Your task to perform on an android device: Open the calendar and show me this week's events? Image 0: 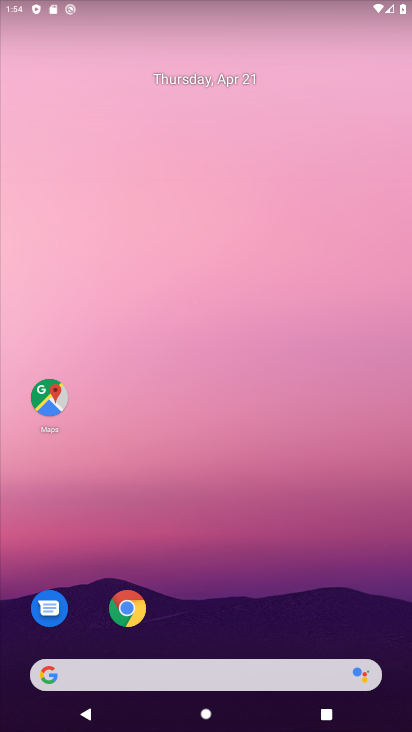
Step 0: drag from (198, 488) to (184, 153)
Your task to perform on an android device: Open the calendar and show me this week's events? Image 1: 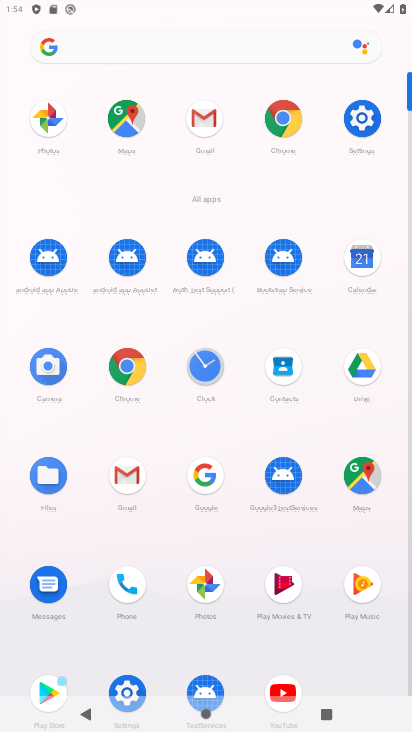
Step 1: click (363, 275)
Your task to perform on an android device: Open the calendar and show me this week's events? Image 2: 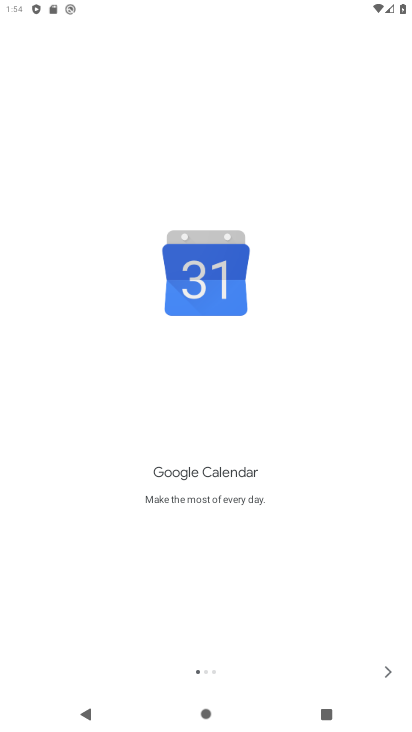
Step 2: click (387, 666)
Your task to perform on an android device: Open the calendar and show me this week's events? Image 3: 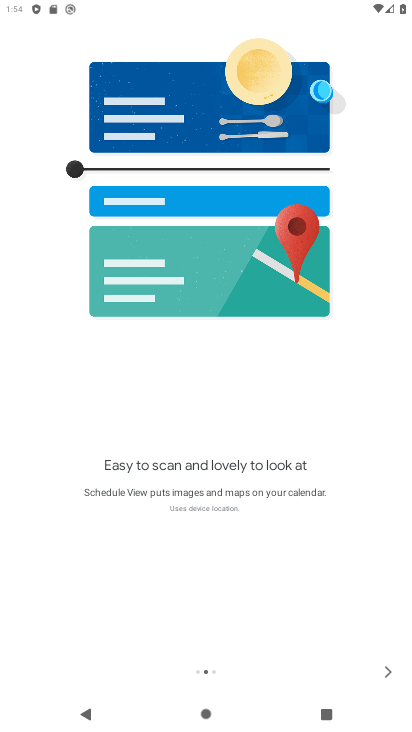
Step 3: click (373, 675)
Your task to perform on an android device: Open the calendar and show me this week's events? Image 4: 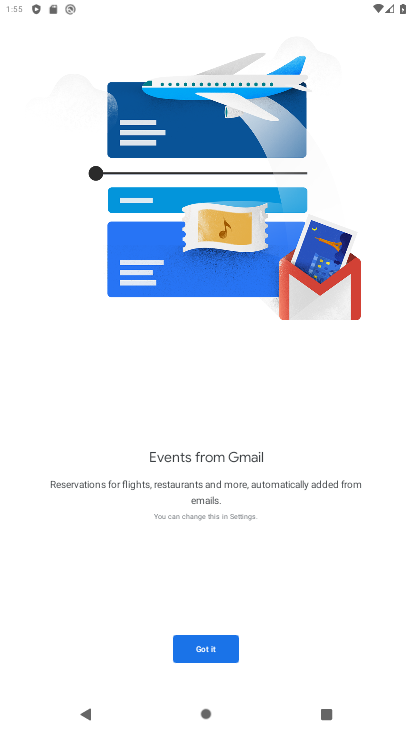
Step 4: click (194, 633)
Your task to perform on an android device: Open the calendar and show me this week's events? Image 5: 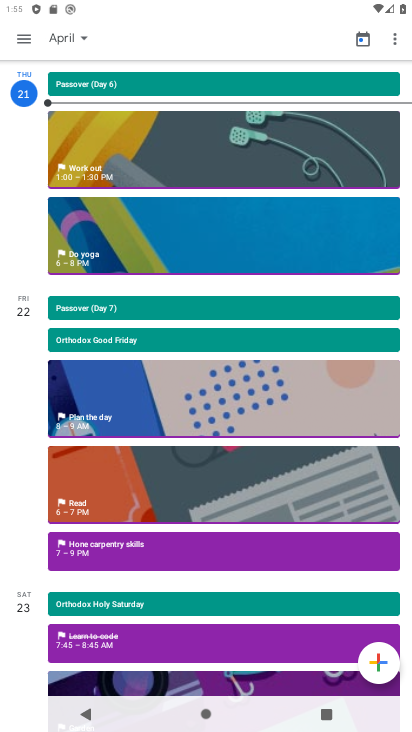
Step 5: click (82, 44)
Your task to perform on an android device: Open the calendar and show me this week's events? Image 6: 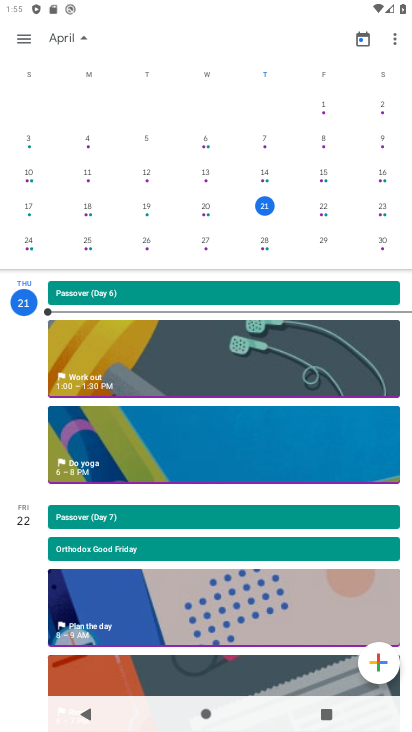
Step 6: click (376, 209)
Your task to perform on an android device: Open the calendar and show me this week's events? Image 7: 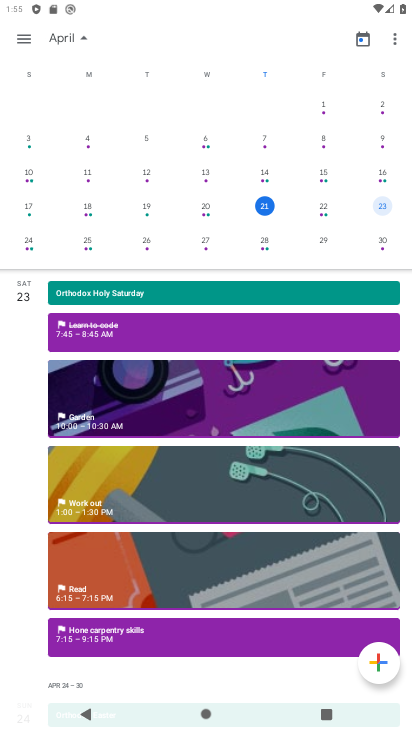
Step 7: click (312, 203)
Your task to perform on an android device: Open the calendar and show me this week's events? Image 8: 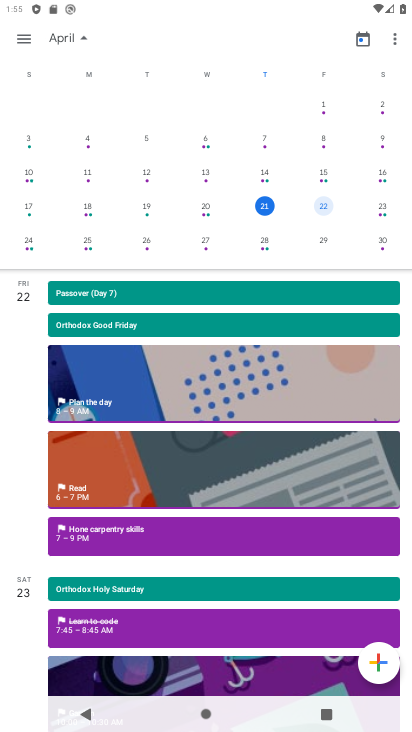
Step 8: click (140, 332)
Your task to perform on an android device: Open the calendar and show me this week's events? Image 9: 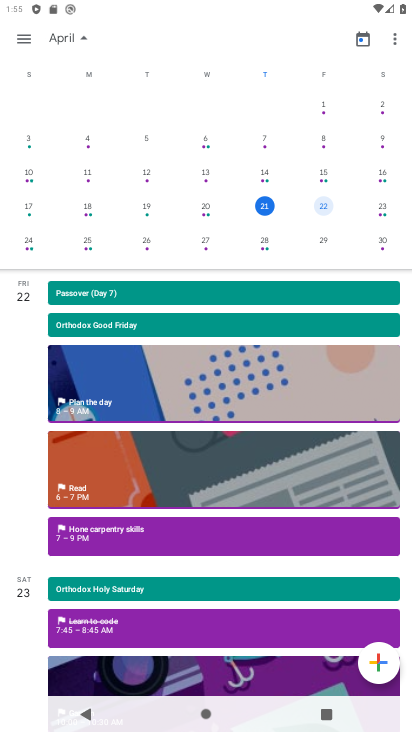
Step 9: click (147, 364)
Your task to perform on an android device: Open the calendar and show me this week's events? Image 10: 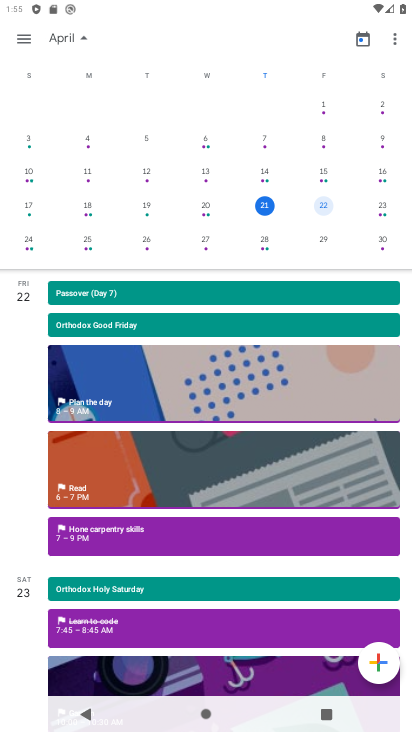
Step 10: click (160, 364)
Your task to perform on an android device: Open the calendar and show me this week's events? Image 11: 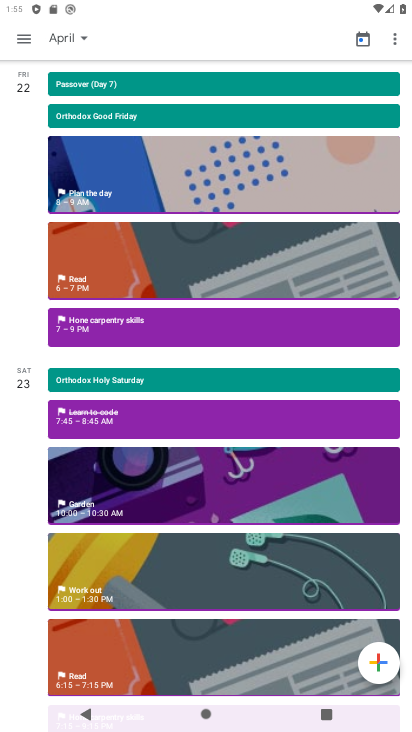
Step 11: task complete